Your task to perform on an android device: What's the weather today? Image 0: 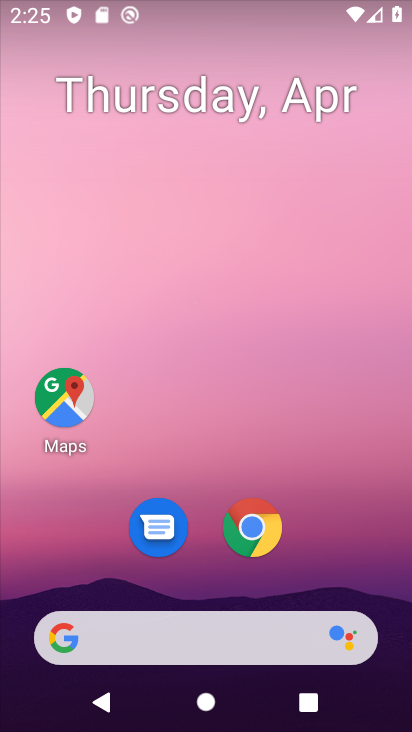
Step 0: drag from (206, 568) to (297, 22)
Your task to perform on an android device: What's the weather today? Image 1: 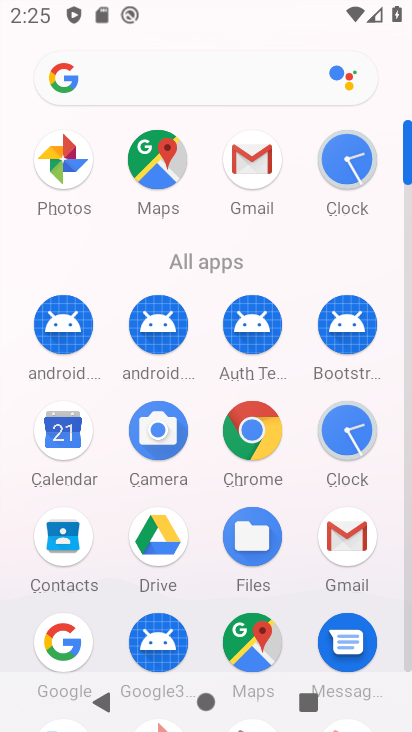
Step 1: press home button
Your task to perform on an android device: What's the weather today? Image 2: 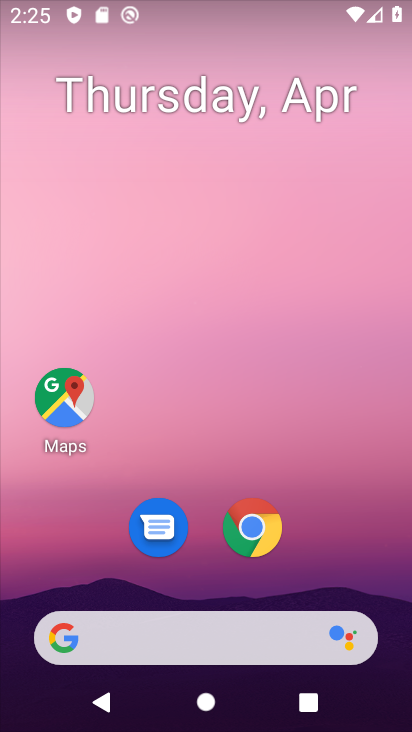
Step 2: click (219, 640)
Your task to perform on an android device: What's the weather today? Image 3: 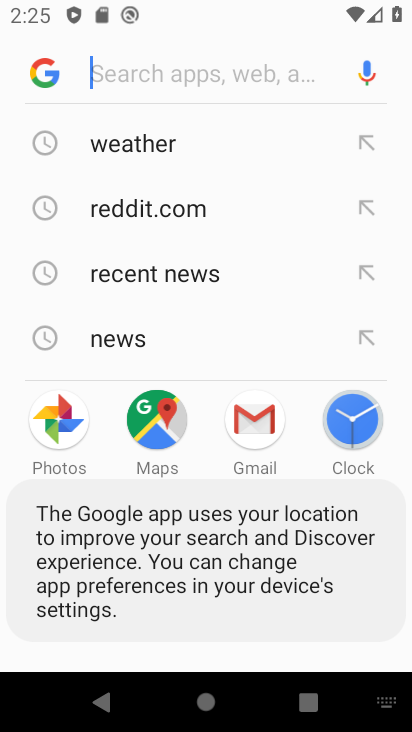
Step 3: click (150, 134)
Your task to perform on an android device: What's the weather today? Image 4: 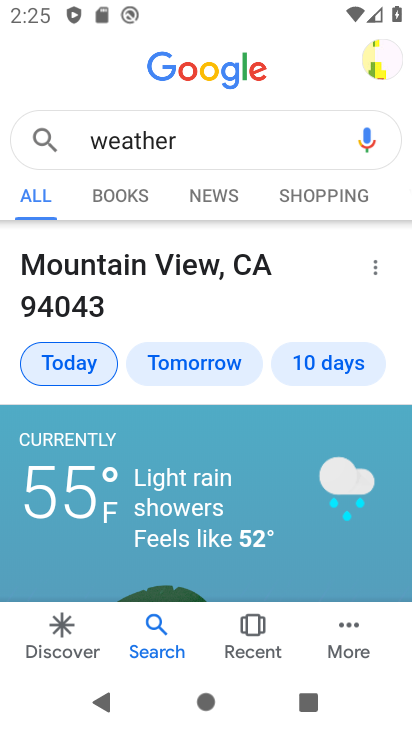
Step 4: task complete